Your task to perform on an android device: What's the weather going to be this weekend? Image 0: 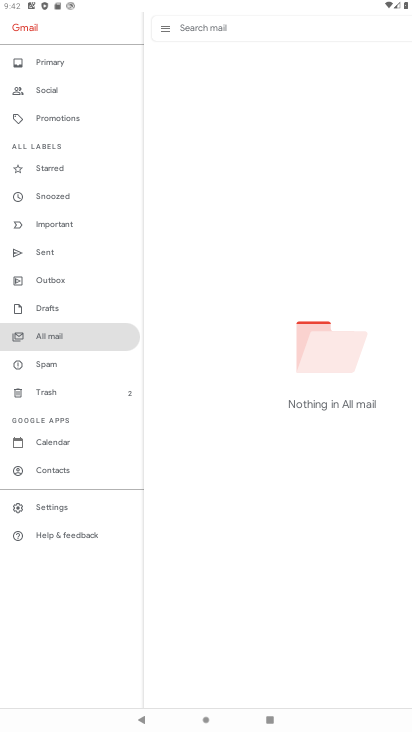
Step 0: press home button
Your task to perform on an android device: What's the weather going to be this weekend? Image 1: 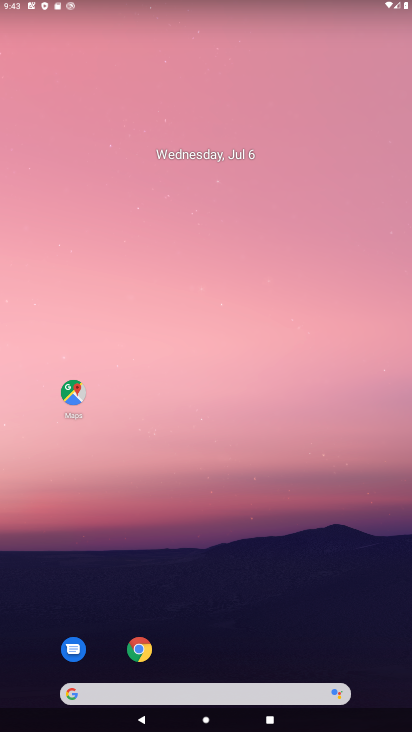
Step 1: drag from (226, 648) to (237, 187)
Your task to perform on an android device: What's the weather going to be this weekend? Image 2: 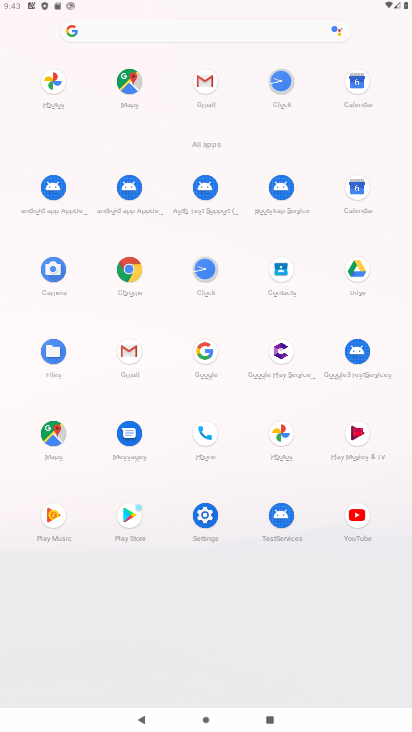
Step 2: click (204, 346)
Your task to perform on an android device: What's the weather going to be this weekend? Image 3: 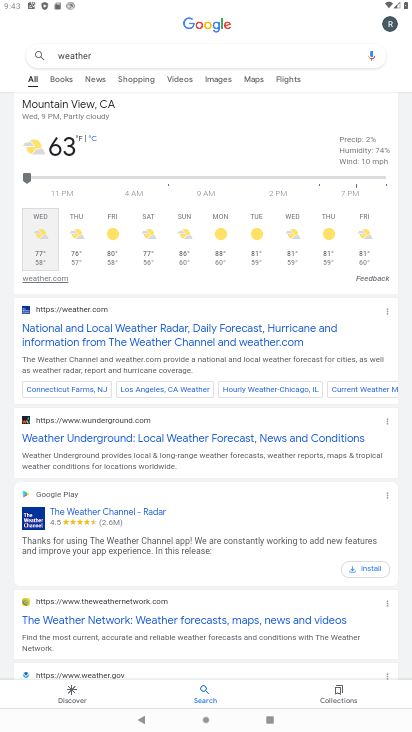
Step 3: click (123, 51)
Your task to perform on an android device: What's the weather going to be this weekend? Image 4: 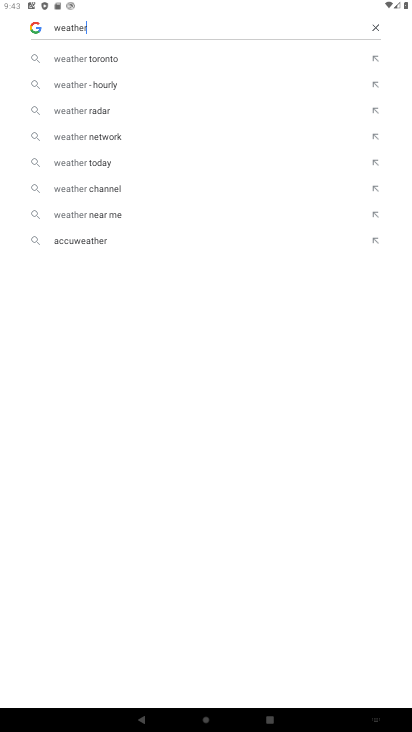
Step 4: click (378, 30)
Your task to perform on an android device: What's the weather going to be this weekend? Image 5: 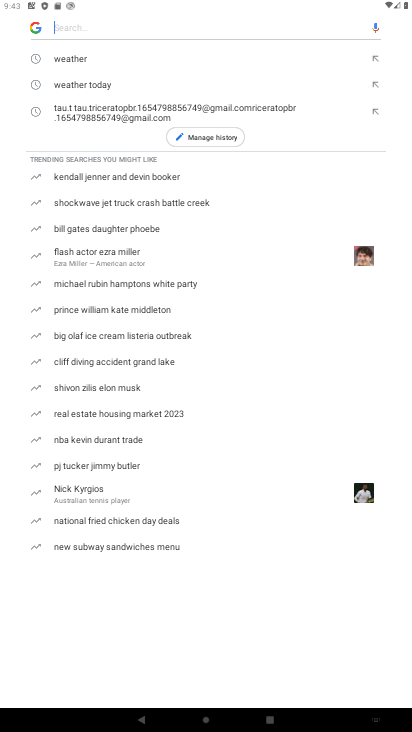
Step 5: type "What's the weather going to be this weekend?"
Your task to perform on an android device: What's the weather going to be this weekend? Image 6: 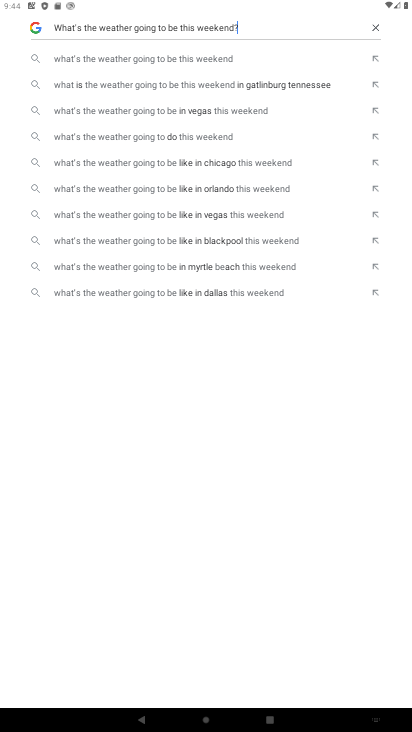
Step 6: type ""
Your task to perform on an android device: What's the weather going to be this weekend? Image 7: 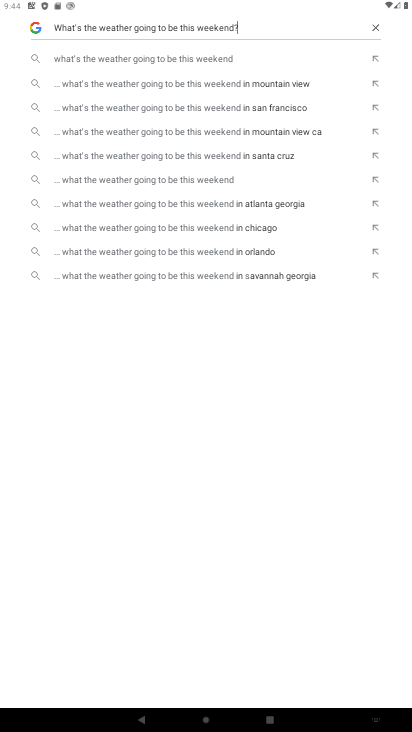
Step 7: click (192, 61)
Your task to perform on an android device: What's the weather going to be this weekend? Image 8: 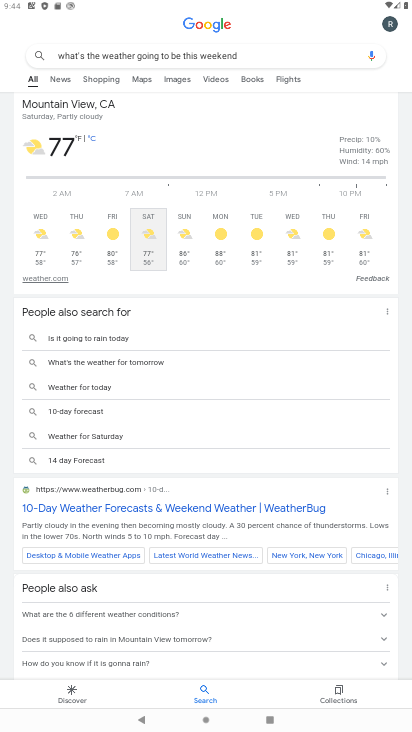
Step 8: task complete